Your task to perform on an android device: turn on improve location accuracy Image 0: 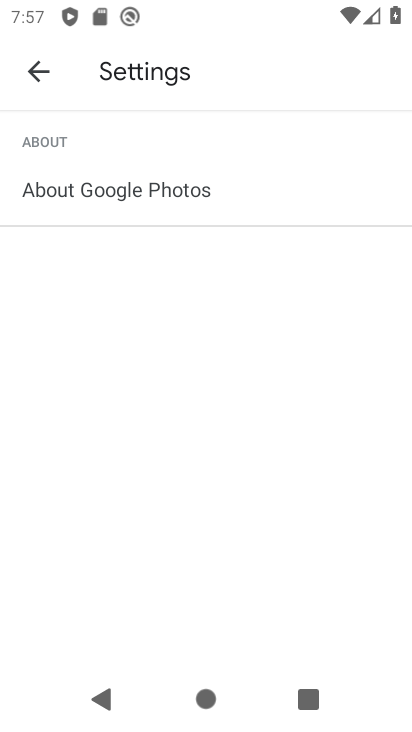
Step 0: press back button
Your task to perform on an android device: turn on improve location accuracy Image 1: 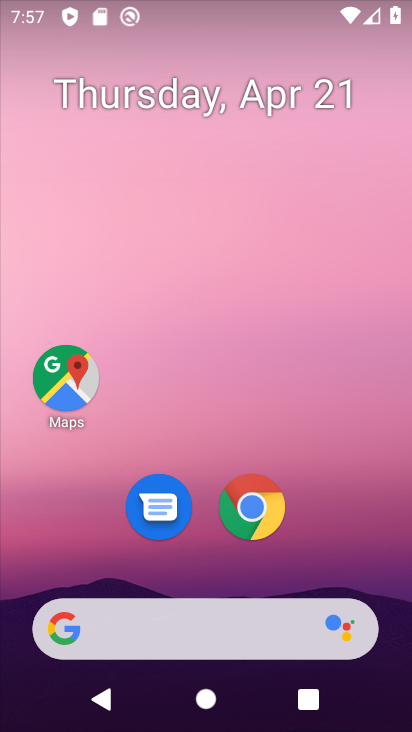
Step 1: drag from (171, 465) to (260, 13)
Your task to perform on an android device: turn on improve location accuracy Image 2: 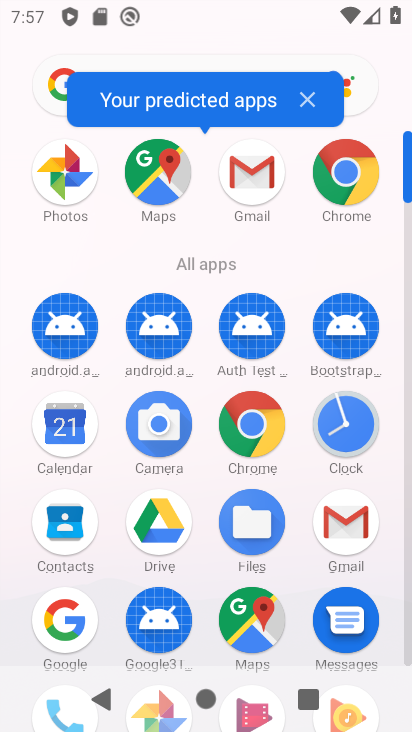
Step 2: drag from (234, 505) to (412, 46)
Your task to perform on an android device: turn on improve location accuracy Image 3: 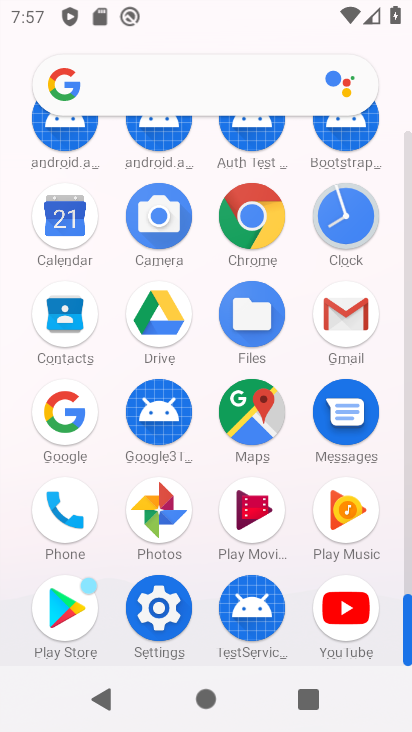
Step 3: click (159, 618)
Your task to perform on an android device: turn on improve location accuracy Image 4: 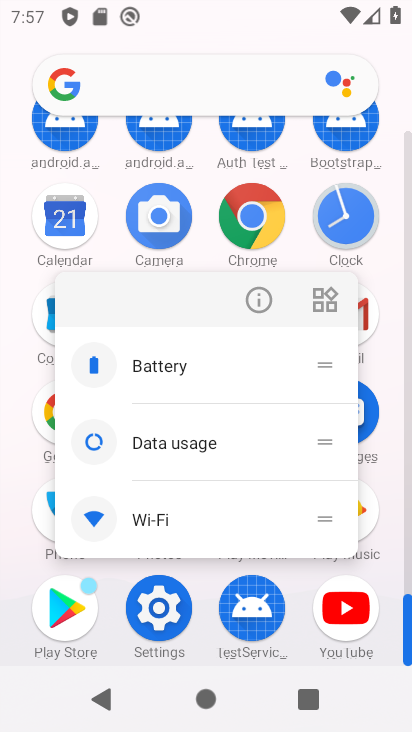
Step 4: click (168, 599)
Your task to perform on an android device: turn on improve location accuracy Image 5: 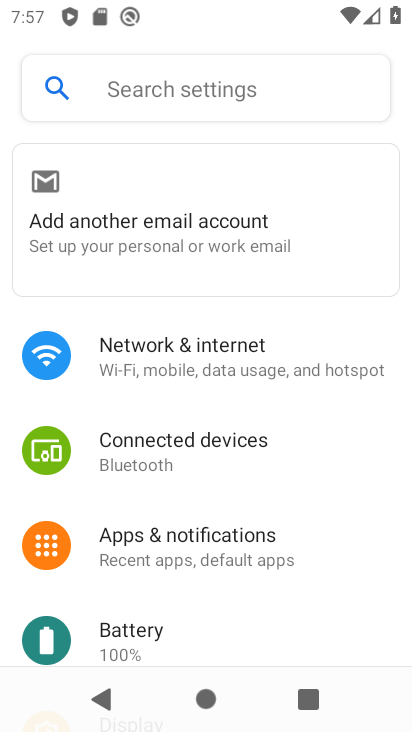
Step 5: drag from (193, 547) to (291, 141)
Your task to perform on an android device: turn on improve location accuracy Image 6: 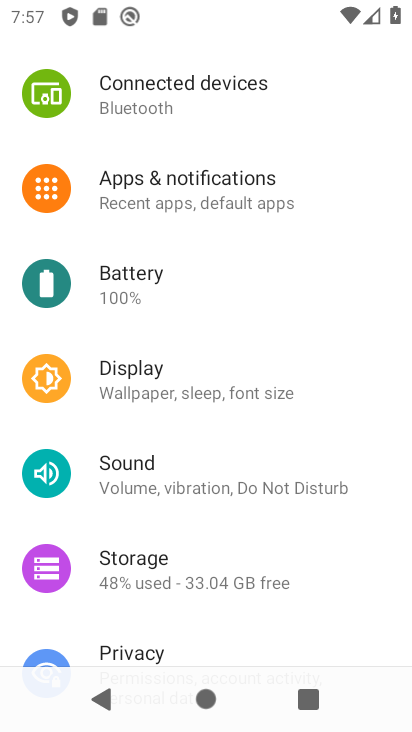
Step 6: drag from (194, 615) to (298, 242)
Your task to perform on an android device: turn on improve location accuracy Image 7: 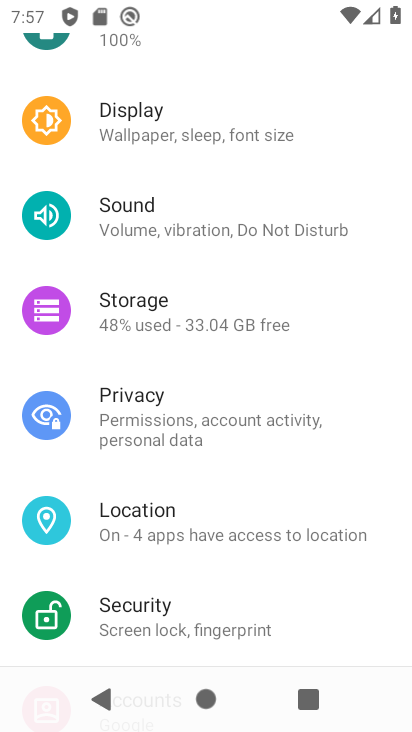
Step 7: click (161, 514)
Your task to perform on an android device: turn on improve location accuracy Image 8: 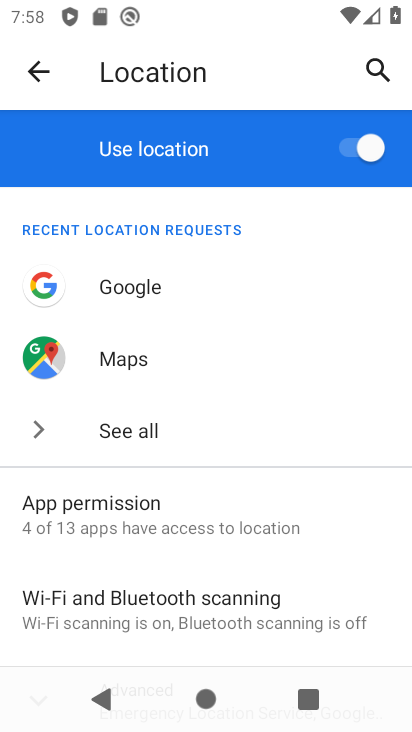
Step 8: drag from (194, 567) to (311, 178)
Your task to perform on an android device: turn on improve location accuracy Image 9: 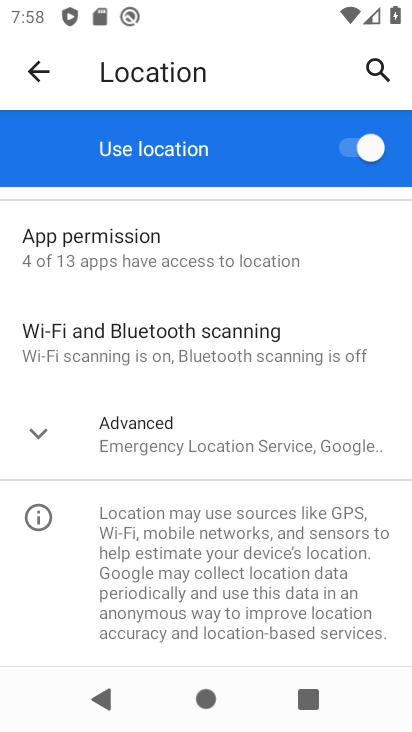
Step 9: click (155, 427)
Your task to perform on an android device: turn on improve location accuracy Image 10: 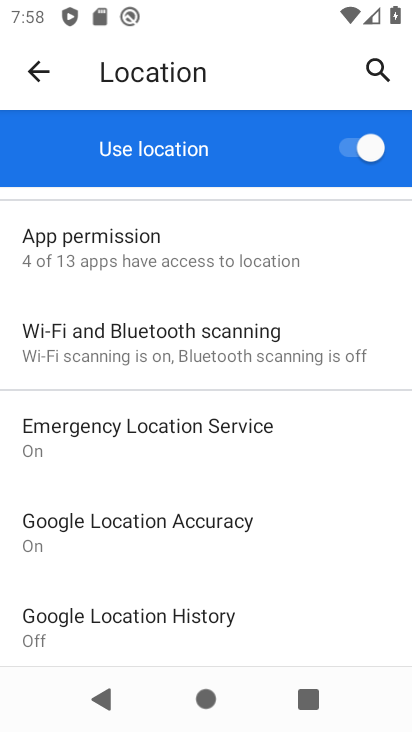
Step 10: click (125, 517)
Your task to perform on an android device: turn on improve location accuracy Image 11: 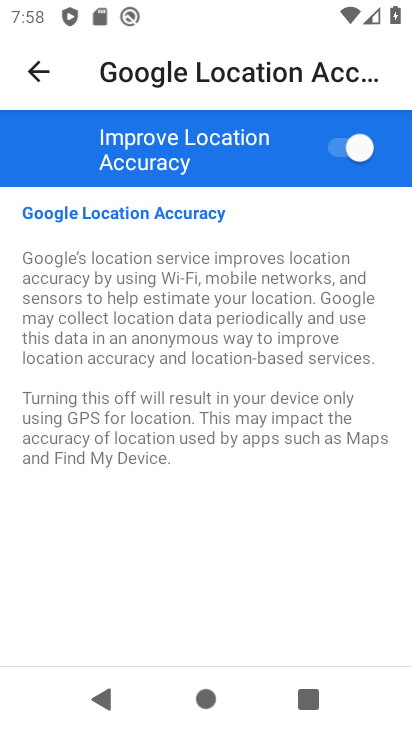
Step 11: task complete